Your task to perform on an android device: search for starred emails in the gmail app Image 0: 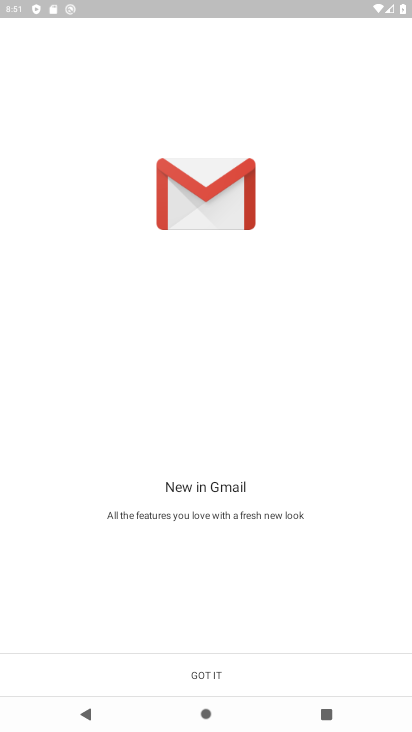
Step 0: click (195, 673)
Your task to perform on an android device: search for starred emails in the gmail app Image 1: 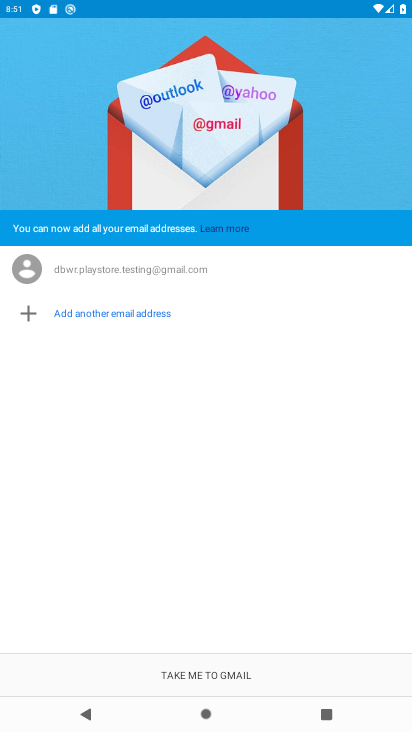
Step 1: click (195, 672)
Your task to perform on an android device: search for starred emails in the gmail app Image 2: 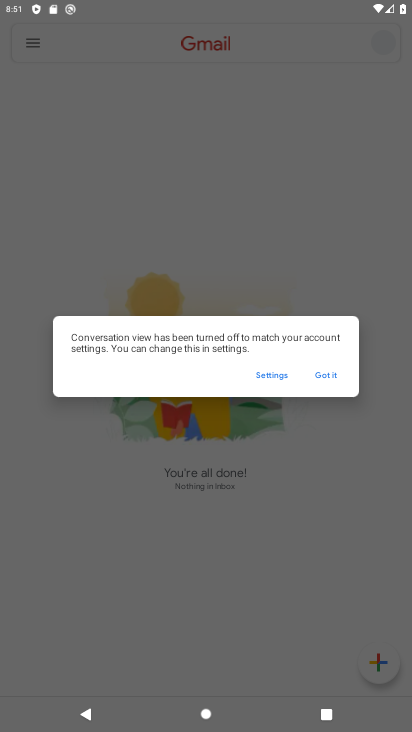
Step 2: click (335, 378)
Your task to perform on an android device: search for starred emails in the gmail app Image 3: 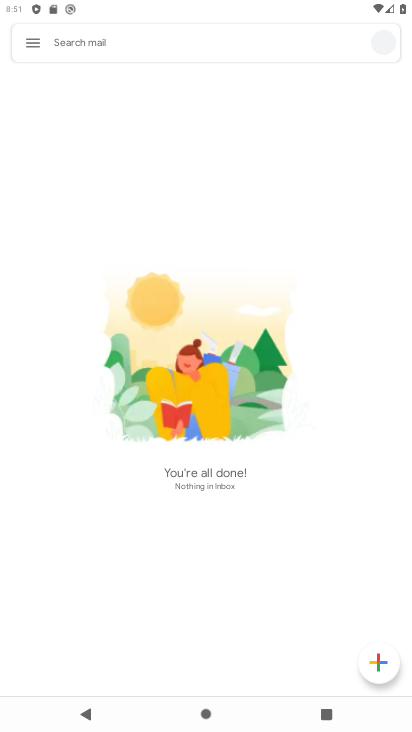
Step 3: click (33, 43)
Your task to perform on an android device: search for starred emails in the gmail app Image 4: 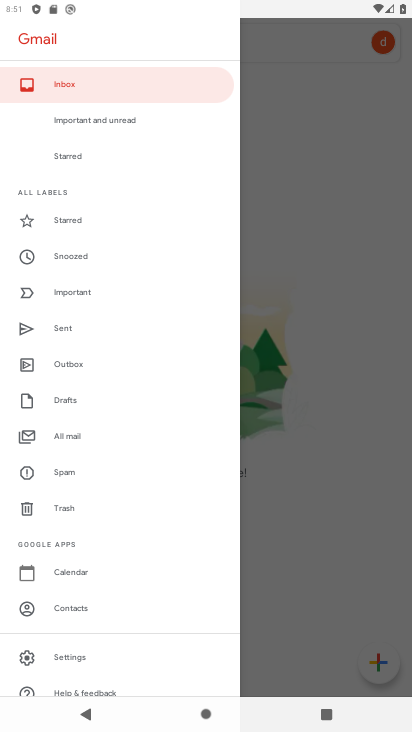
Step 4: click (65, 229)
Your task to perform on an android device: search for starred emails in the gmail app Image 5: 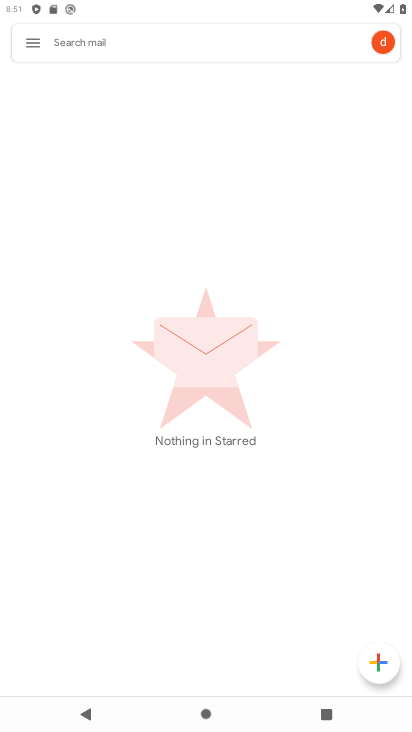
Step 5: task complete